Your task to perform on an android device: Open settings on Google Maps Image 0: 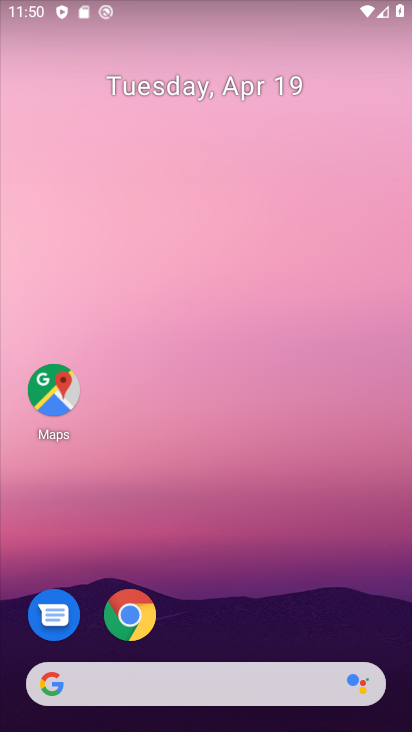
Step 0: click (52, 393)
Your task to perform on an android device: Open settings on Google Maps Image 1: 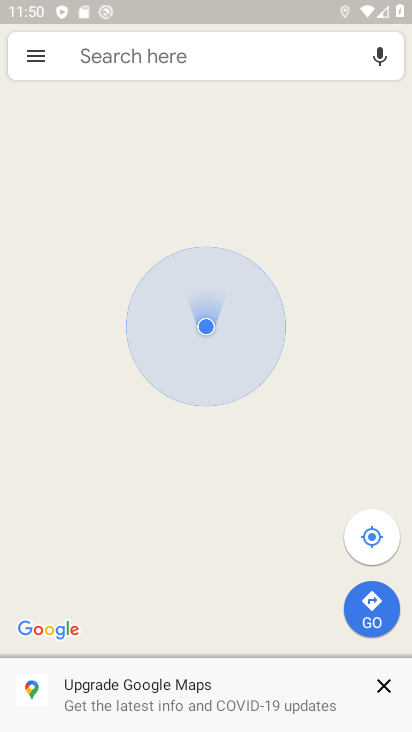
Step 1: click (36, 51)
Your task to perform on an android device: Open settings on Google Maps Image 2: 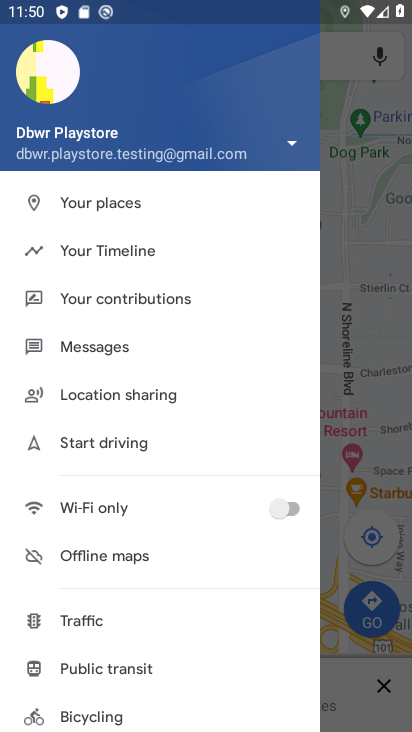
Step 2: drag from (149, 607) to (124, 60)
Your task to perform on an android device: Open settings on Google Maps Image 3: 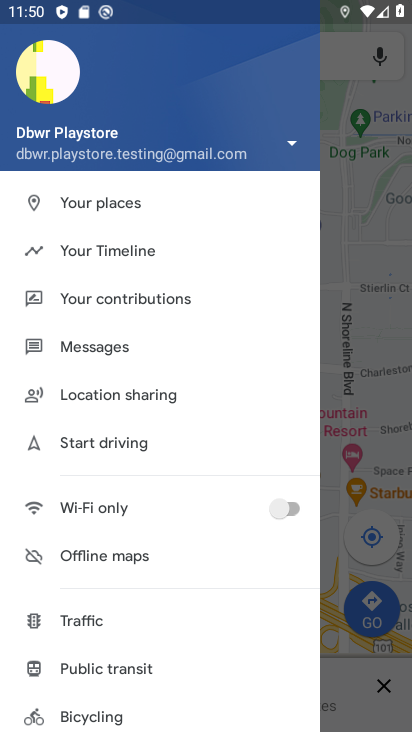
Step 3: drag from (152, 681) to (185, 391)
Your task to perform on an android device: Open settings on Google Maps Image 4: 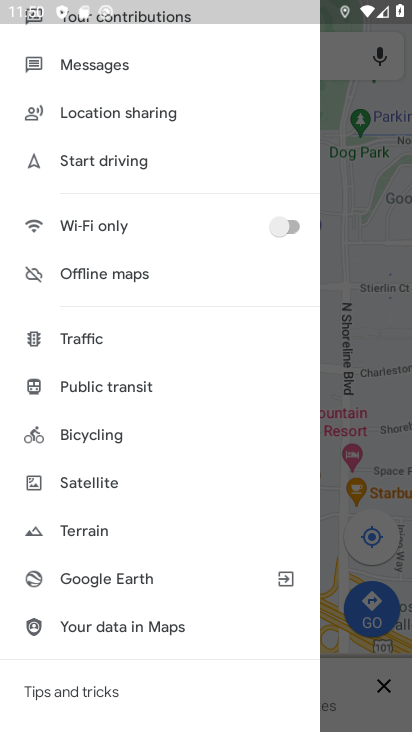
Step 4: drag from (114, 688) to (142, 300)
Your task to perform on an android device: Open settings on Google Maps Image 5: 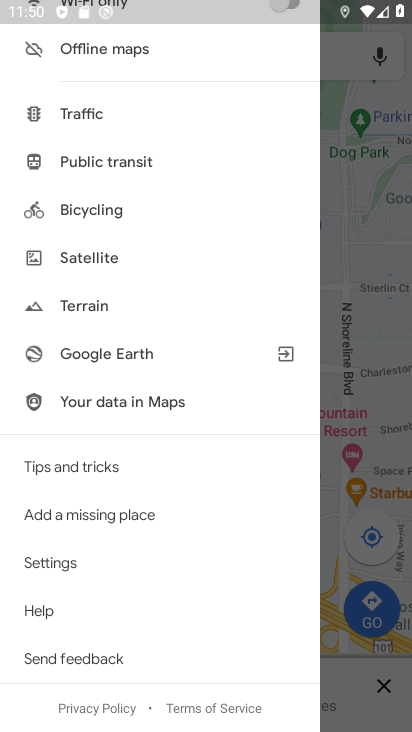
Step 5: click (65, 569)
Your task to perform on an android device: Open settings on Google Maps Image 6: 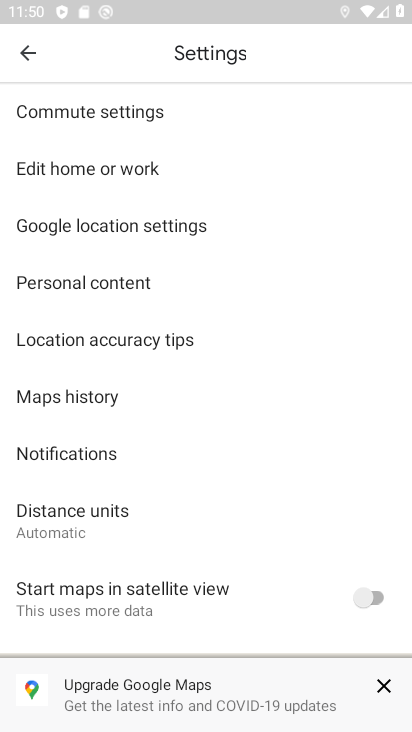
Step 6: task complete